Your task to perform on an android device: See recent photos Image 0: 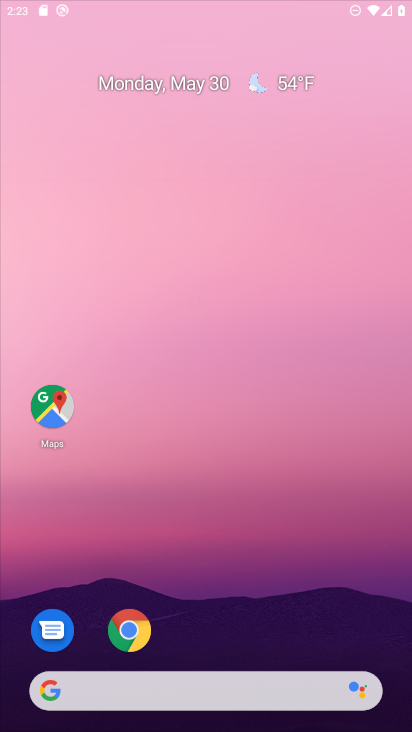
Step 0: click (137, 631)
Your task to perform on an android device: See recent photos Image 1: 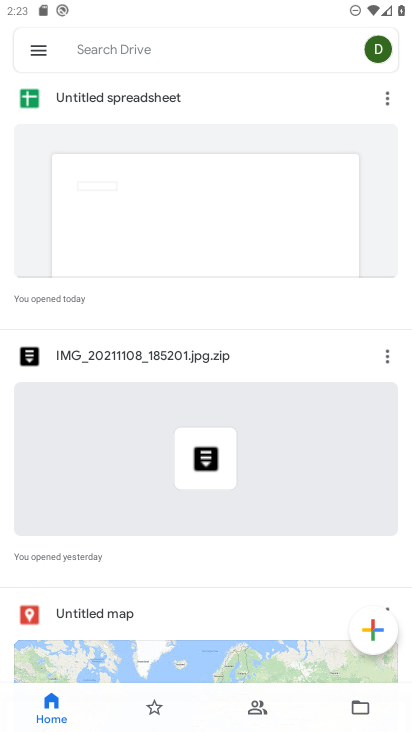
Step 1: press home button
Your task to perform on an android device: See recent photos Image 2: 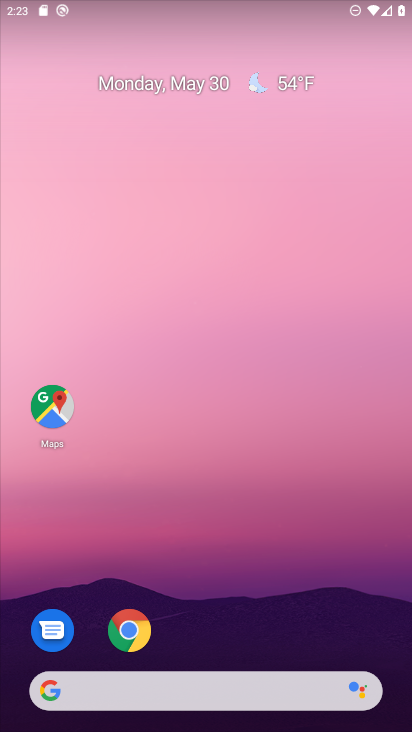
Step 2: drag from (189, 684) to (387, 21)
Your task to perform on an android device: See recent photos Image 3: 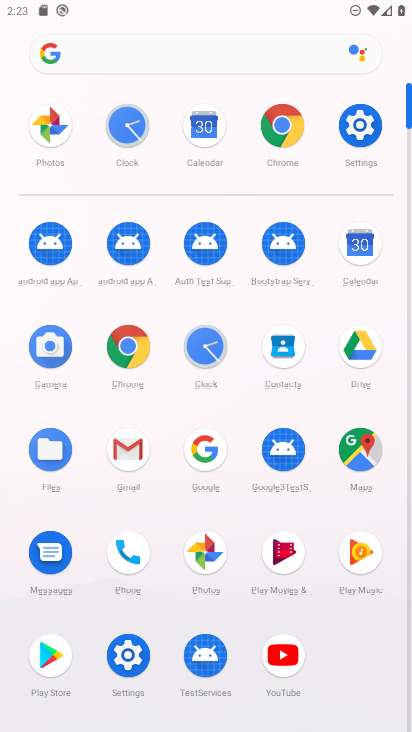
Step 3: click (206, 551)
Your task to perform on an android device: See recent photos Image 4: 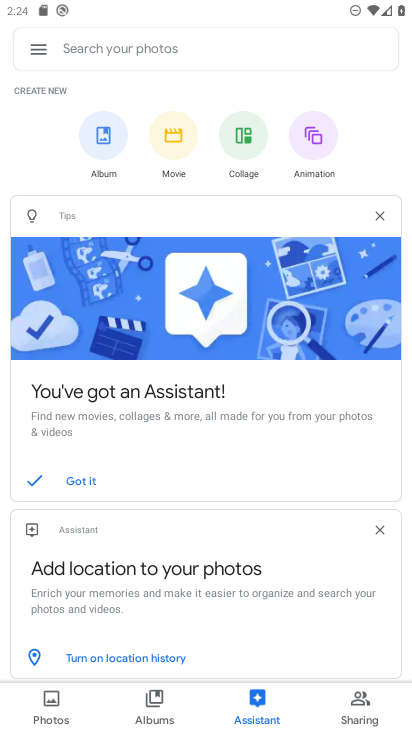
Step 4: click (39, 715)
Your task to perform on an android device: See recent photos Image 5: 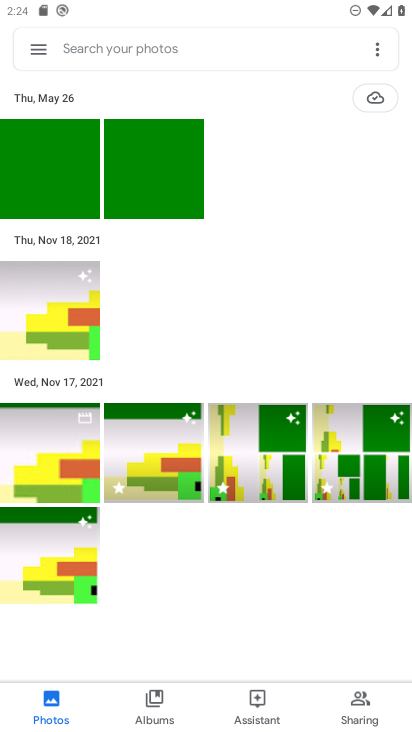
Step 5: task complete